Your task to perform on an android device: change timer sound Image 0: 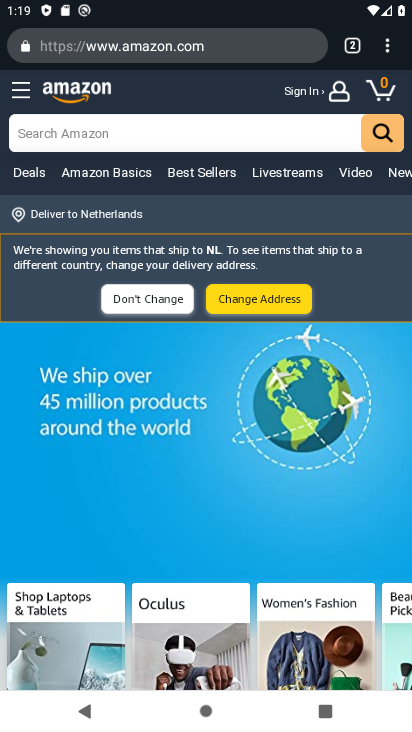
Step 0: press home button
Your task to perform on an android device: change timer sound Image 1: 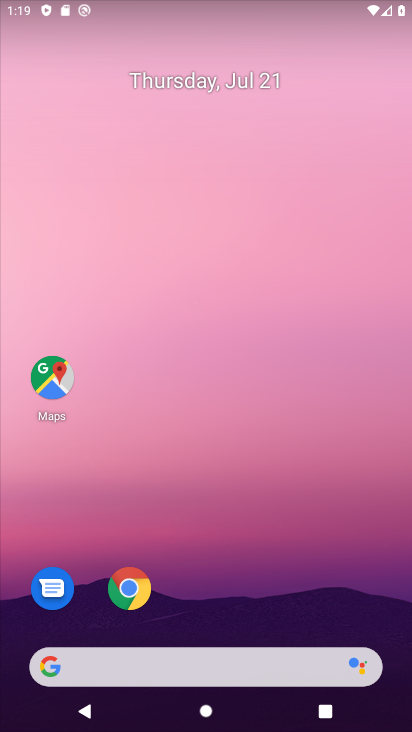
Step 1: drag from (215, 637) to (296, 6)
Your task to perform on an android device: change timer sound Image 2: 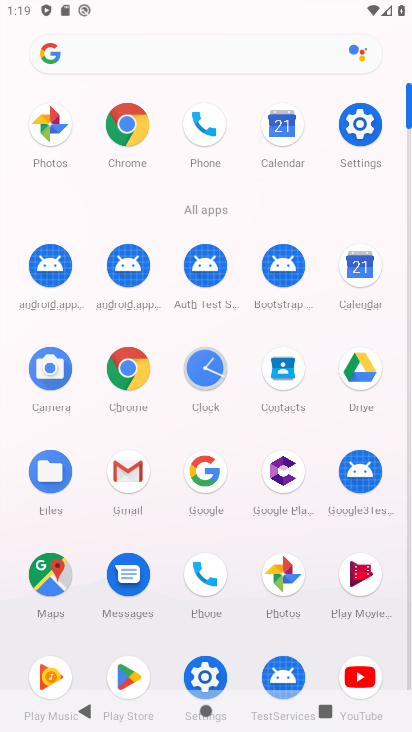
Step 2: click (203, 376)
Your task to perform on an android device: change timer sound Image 3: 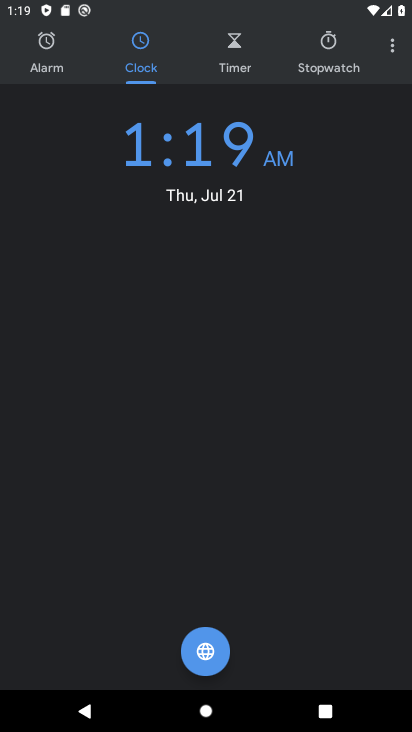
Step 3: drag from (389, 54) to (345, 90)
Your task to perform on an android device: change timer sound Image 4: 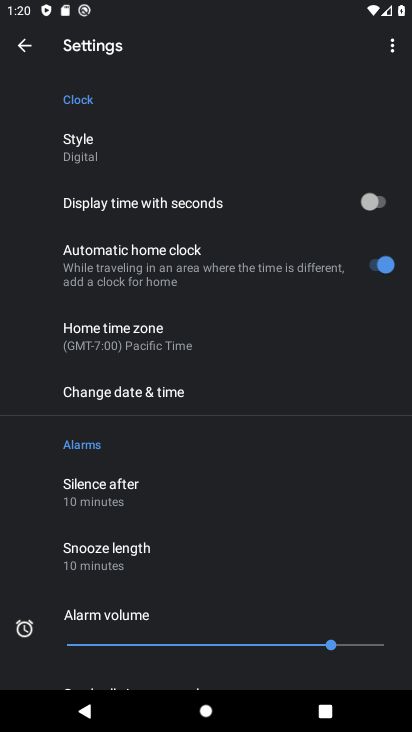
Step 4: drag from (176, 545) to (156, 134)
Your task to perform on an android device: change timer sound Image 5: 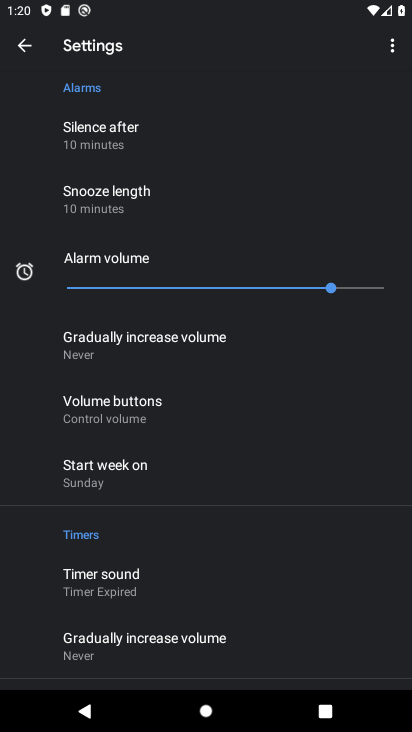
Step 5: click (90, 587)
Your task to perform on an android device: change timer sound Image 6: 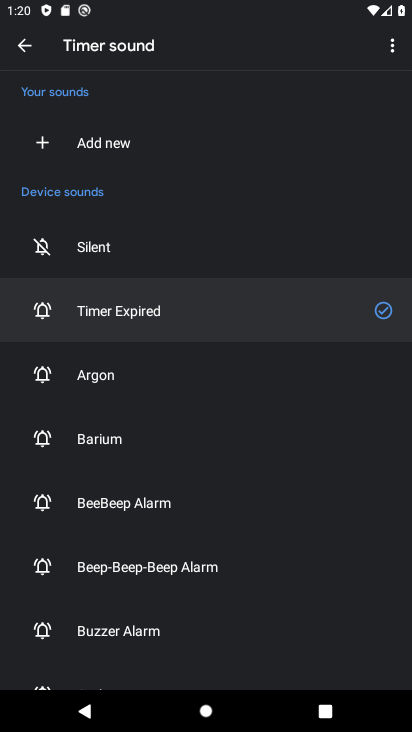
Step 6: click (112, 372)
Your task to perform on an android device: change timer sound Image 7: 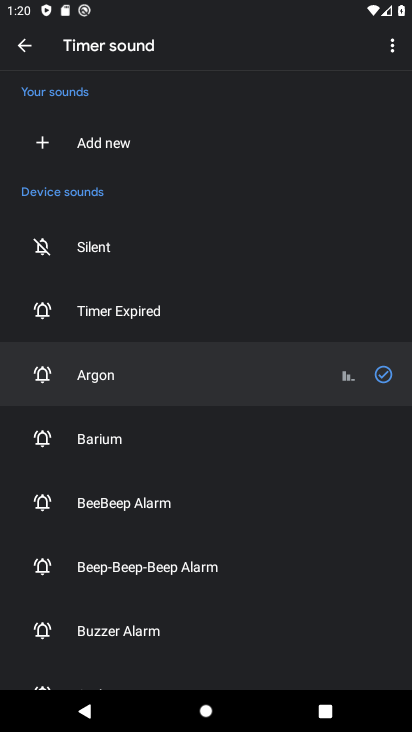
Step 7: task complete